Your task to perform on an android device: turn vacation reply on in the gmail app Image 0: 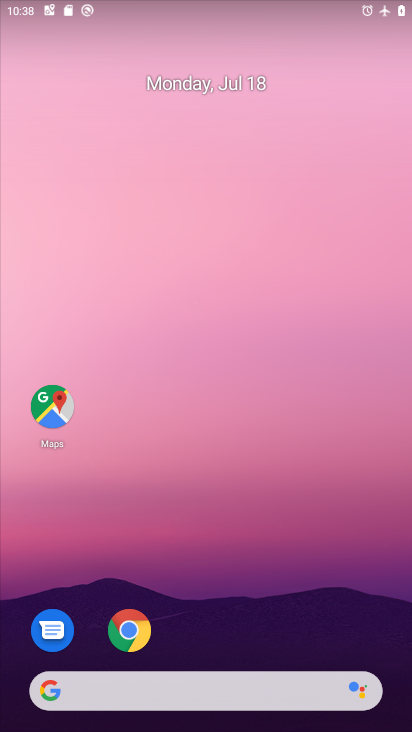
Step 0: drag from (211, 645) to (213, 190)
Your task to perform on an android device: turn vacation reply on in the gmail app Image 1: 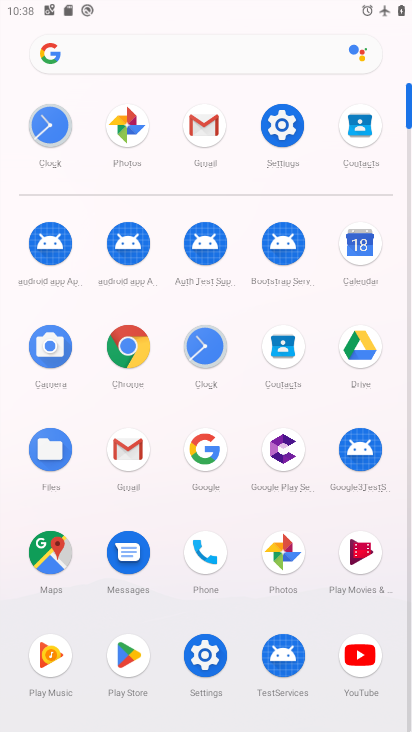
Step 1: click (203, 141)
Your task to perform on an android device: turn vacation reply on in the gmail app Image 2: 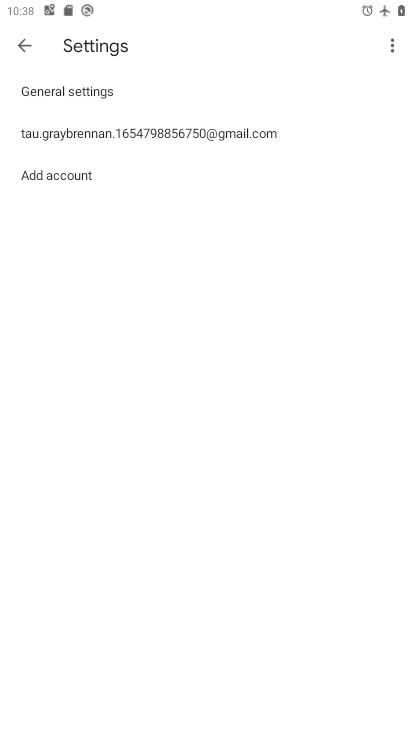
Step 2: click (31, 44)
Your task to perform on an android device: turn vacation reply on in the gmail app Image 3: 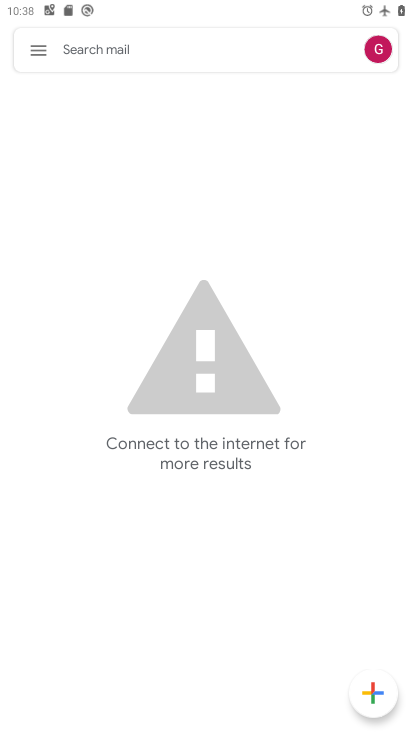
Step 3: click (39, 54)
Your task to perform on an android device: turn vacation reply on in the gmail app Image 4: 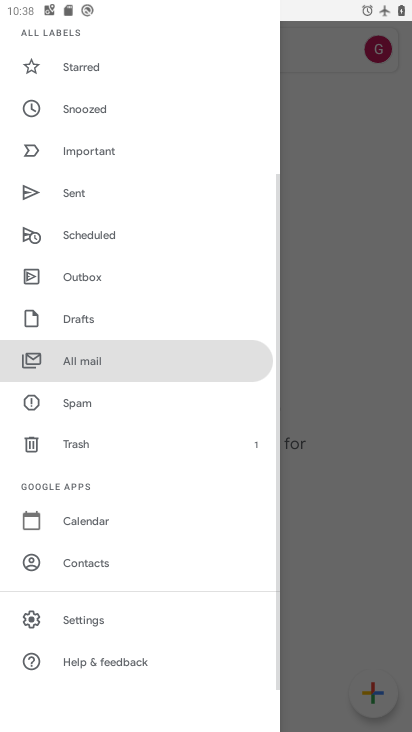
Step 4: click (116, 628)
Your task to perform on an android device: turn vacation reply on in the gmail app Image 5: 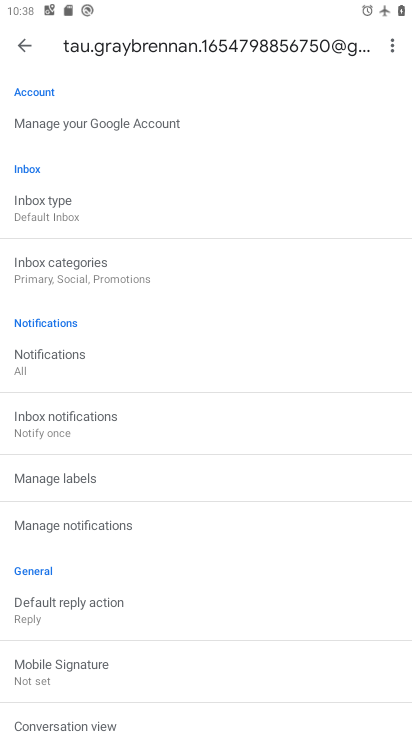
Step 5: drag from (152, 672) to (159, 382)
Your task to perform on an android device: turn vacation reply on in the gmail app Image 6: 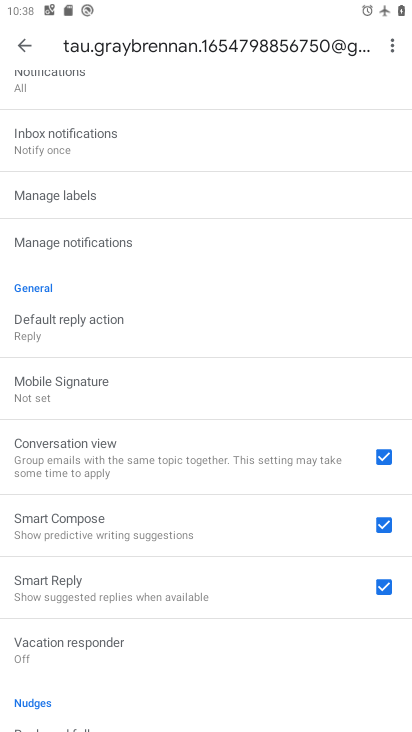
Step 6: click (106, 643)
Your task to perform on an android device: turn vacation reply on in the gmail app Image 7: 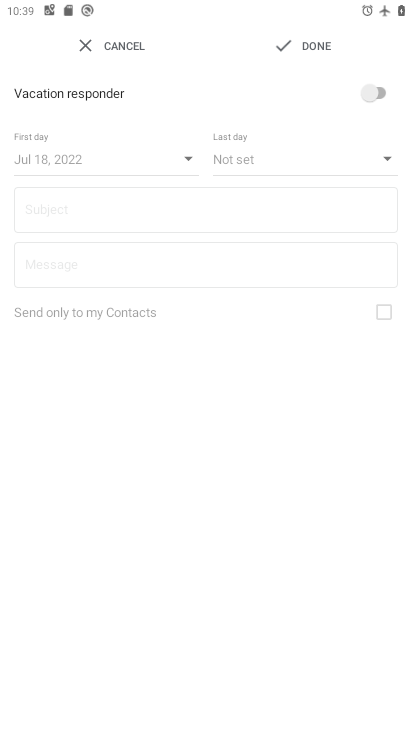
Step 7: click (379, 96)
Your task to perform on an android device: turn vacation reply on in the gmail app Image 8: 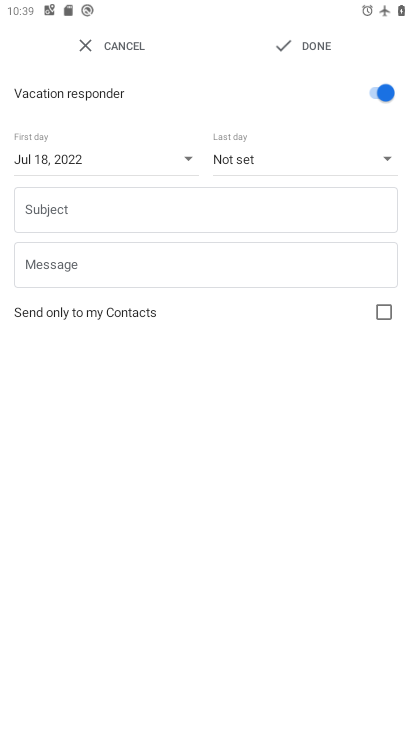
Step 8: task complete